Your task to perform on an android device: set the timer Image 0: 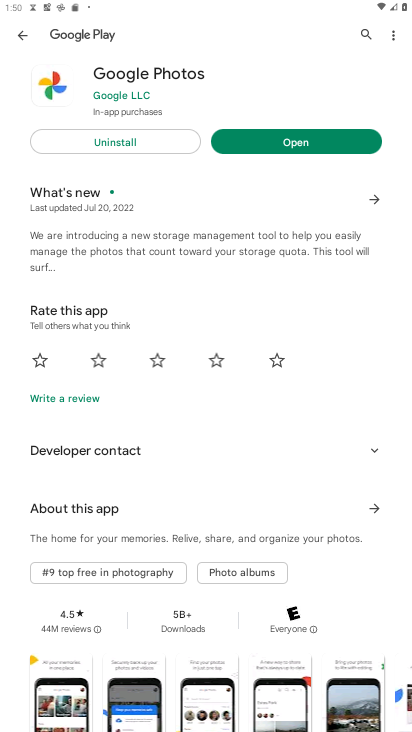
Step 0: press home button
Your task to perform on an android device: set the timer Image 1: 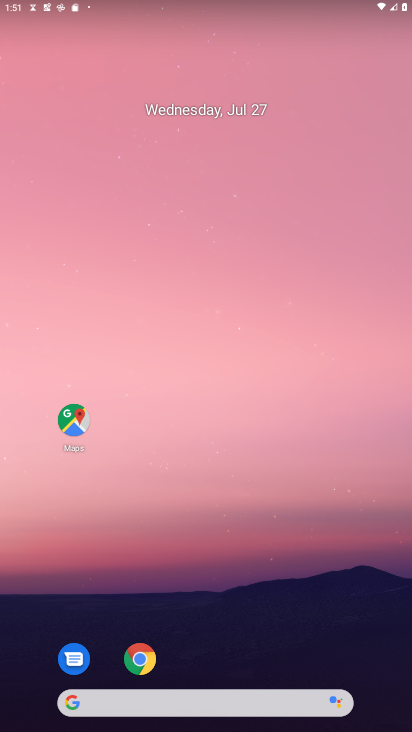
Step 1: drag from (42, 587) to (174, 144)
Your task to perform on an android device: set the timer Image 2: 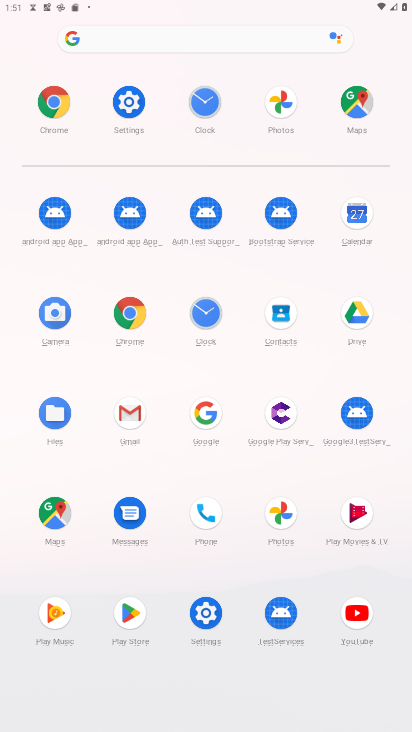
Step 2: click (199, 108)
Your task to perform on an android device: set the timer Image 3: 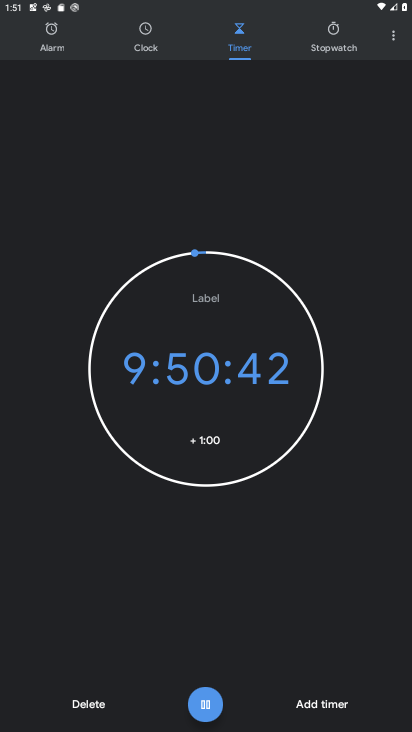
Step 3: click (302, 705)
Your task to perform on an android device: set the timer Image 4: 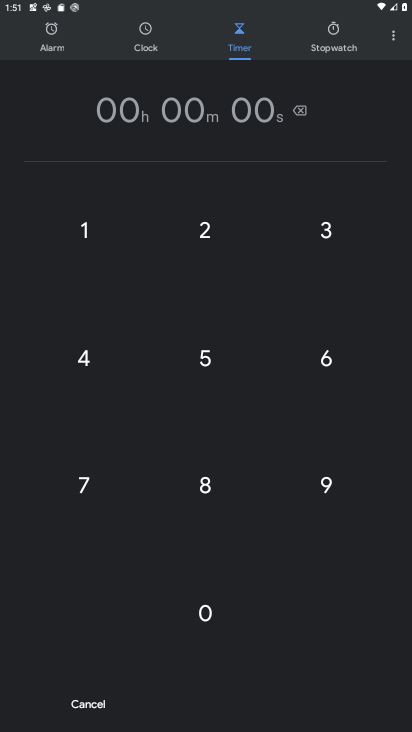
Step 4: click (80, 228)
Your task to perform on an android device: set the timer Image 5: 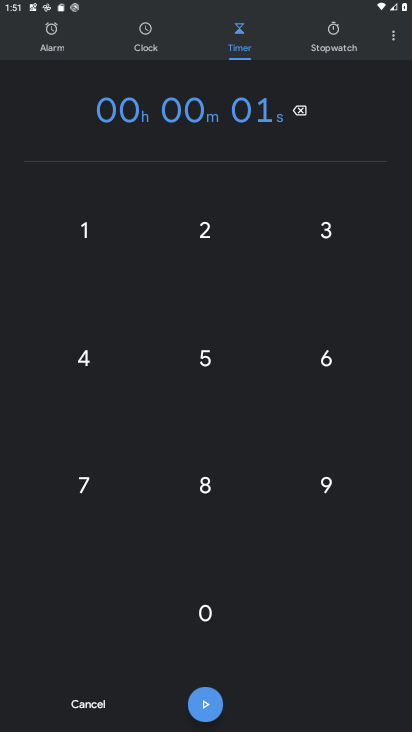
Step 5: click (207, 601)
Your task to perform on an android device: set the timer Image 6: 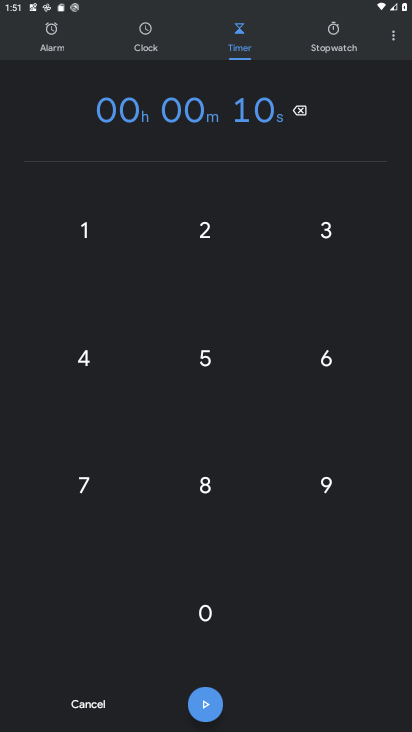
Step 6: click (207, 601)
Your task to perform on an android device: set the timer Image 7: 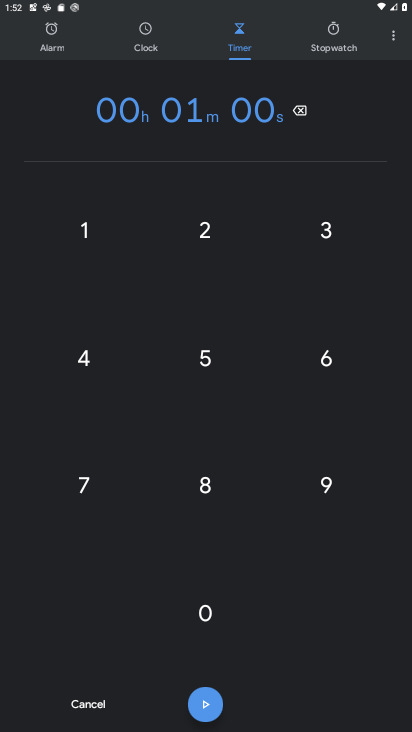
Step 7: click (207, 597)
Your task to perform on an android device: set the timer Image 8: 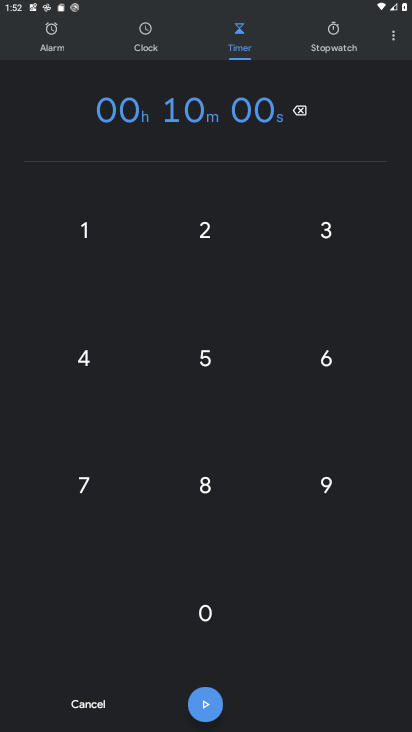
Step 8: click (207, 597)
Your task to perform on an android device: set the timer Image 9: 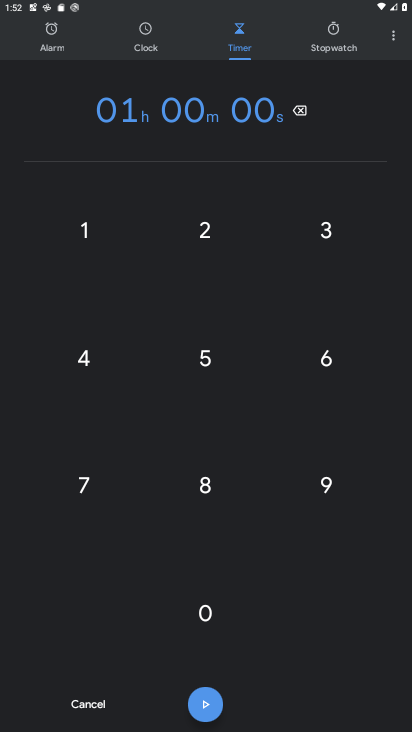
Step 9: click (197, 694)
Your task to perform on an android device: set the timer Image 10: 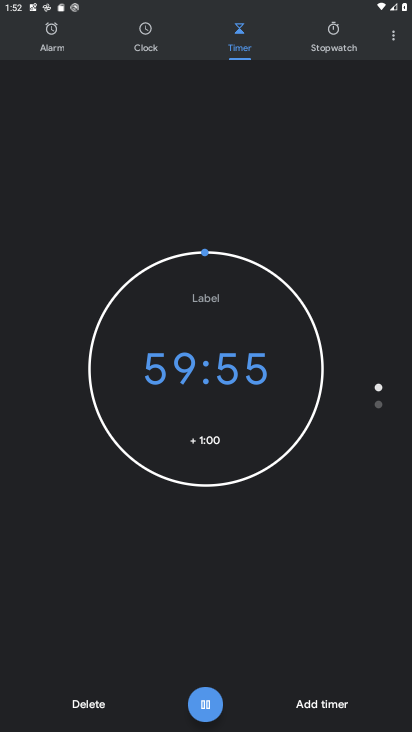
Step 10: task complete